Your task to perform on an android device: find snoozed emails in the gmail app Image 0: 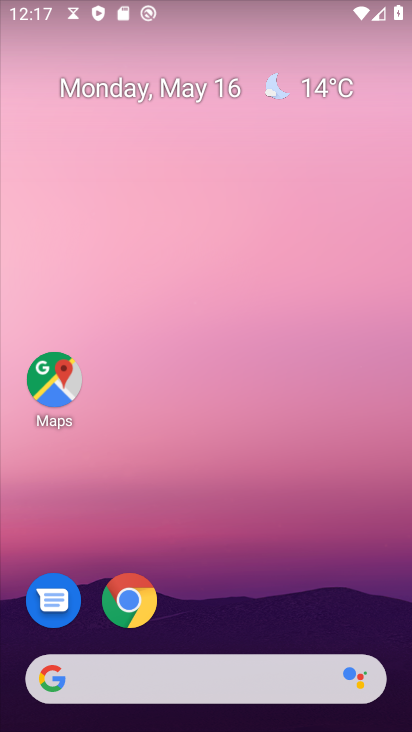
Step 0: drag from (232, 401) to (227, 52)
Your task to perform on an android device: find snoozed emails in the gmail app Image 1: 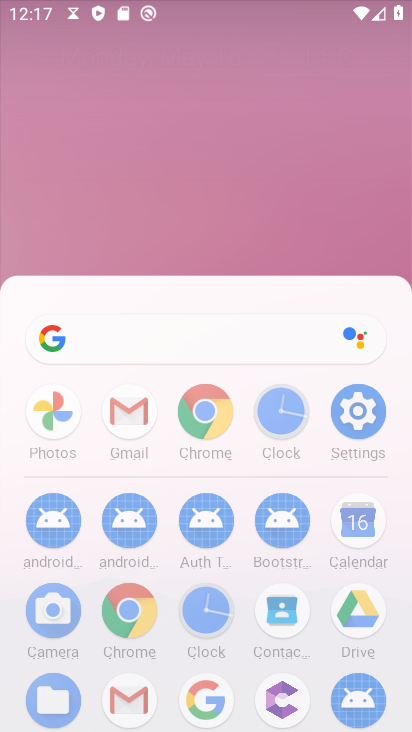
Step 1: drag from (205, 147) to (210, 68)
Your task to perform on an android device: find snoozed emails in the gmail app Image 2: 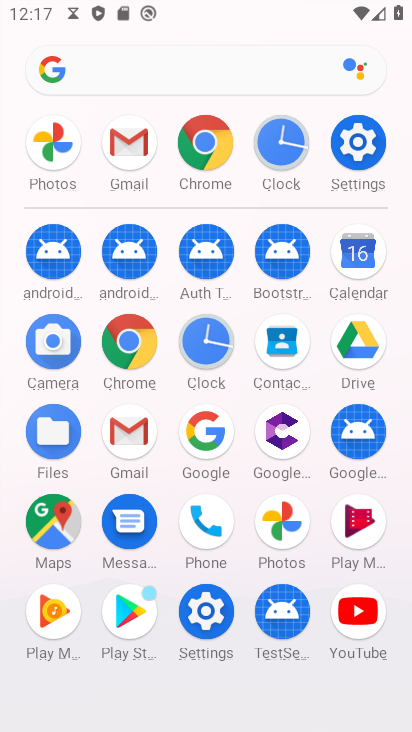
Step 2: drag from (14, 534) to (0, 300)
Your task to perform on an android device: find snoozed emails in the gmail app Image 3: 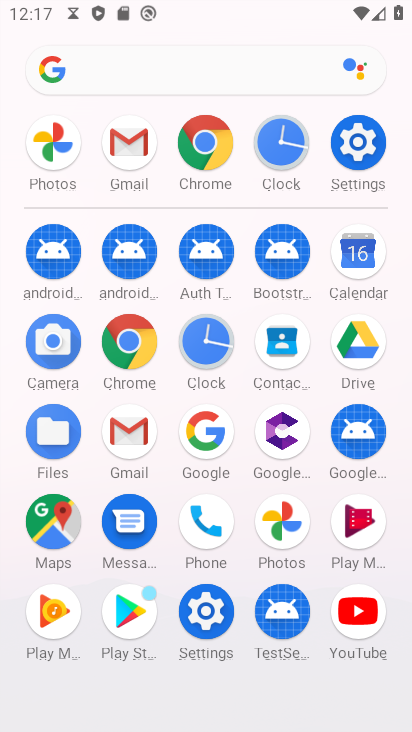
Step 3: click (133, 424)
Your task to perform on an android device: find snoozed emails in the gmail app Image 4: 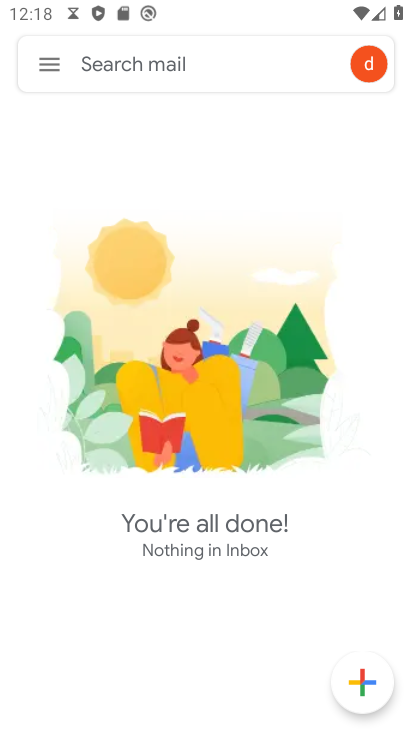
Step 4: click (54, 61)
Your task to perform on an android device: find snoozed emails in the gmail app Image 5: 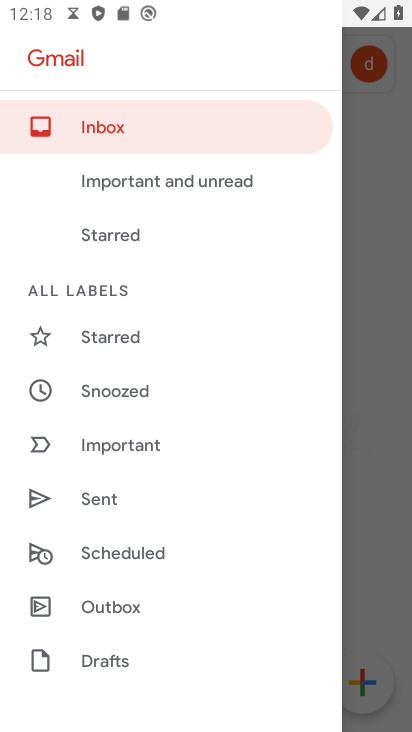
Step 5: click (115, 387)
Your task to perform on an android device: find snoozed emails in the gmail app Image 6: 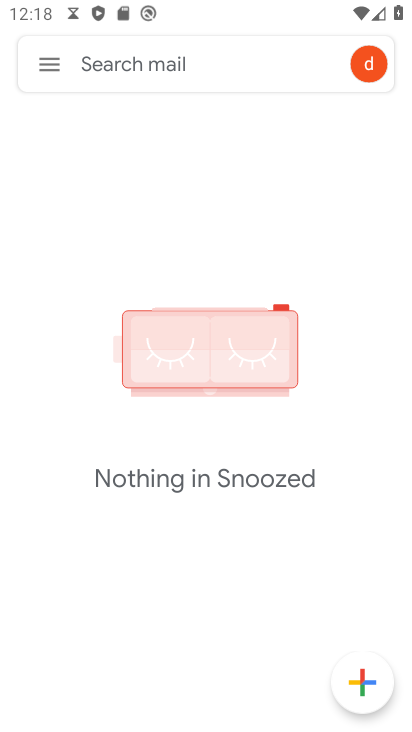
Step 6: task complete